Your task to perform on an android device: turn off sleep mode Image 0: 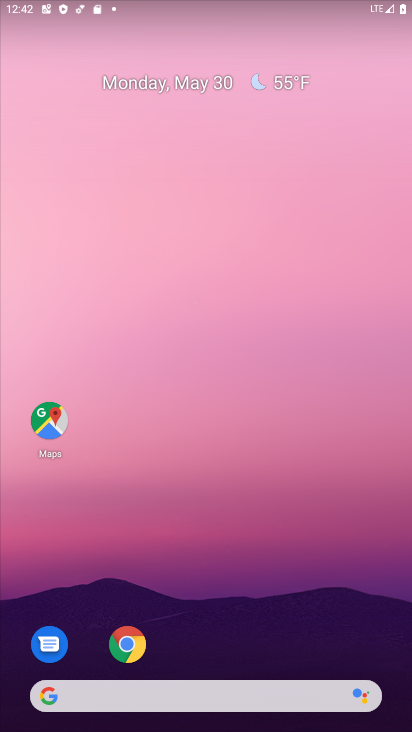
Step 0: drag from (280, 621) to (275, 73)
Your task to perform on an android device: turn off sleep mode Image 1: 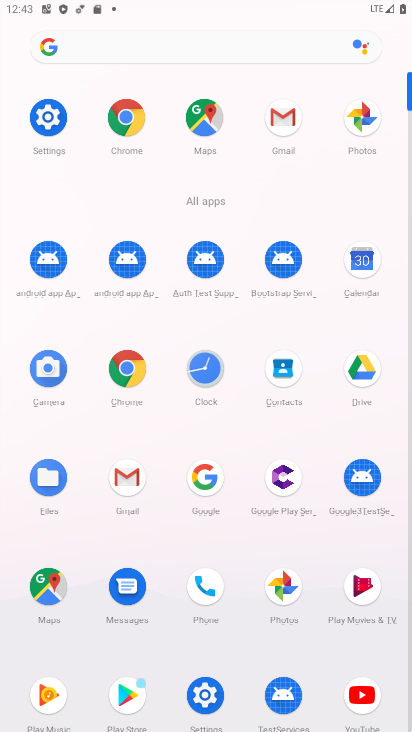
Step 1: click (58, 138)
Your task to perform on an android device: turn off sleep mode Image 2: 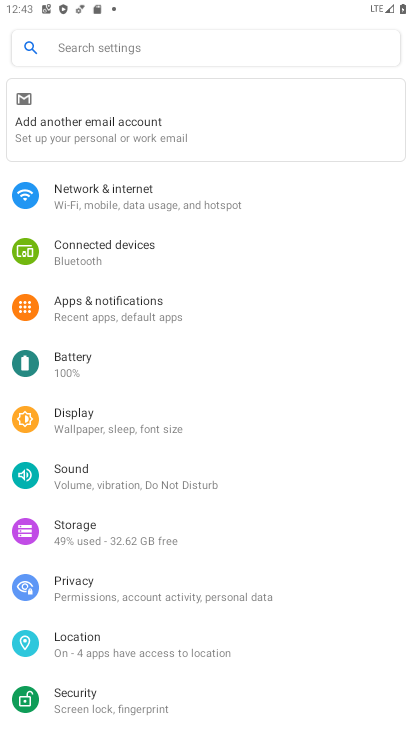
Step 2: click (185, 440)
Your task to perform on an android device: turn off sleep mode Image 3: 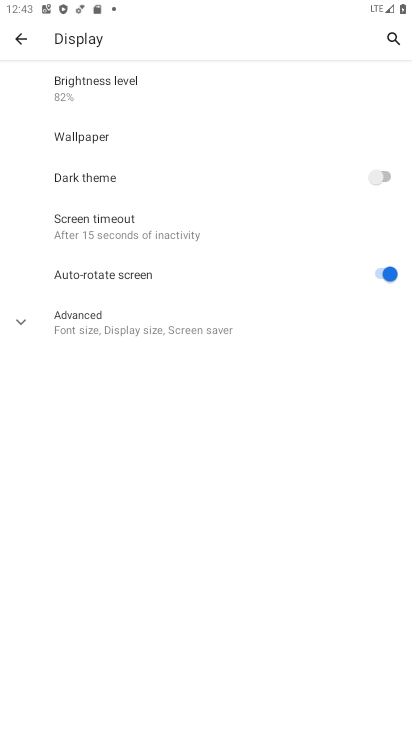
Step 3: click (262, 238)
Your task to perform on an android device: turn off sleep mode Image 4: 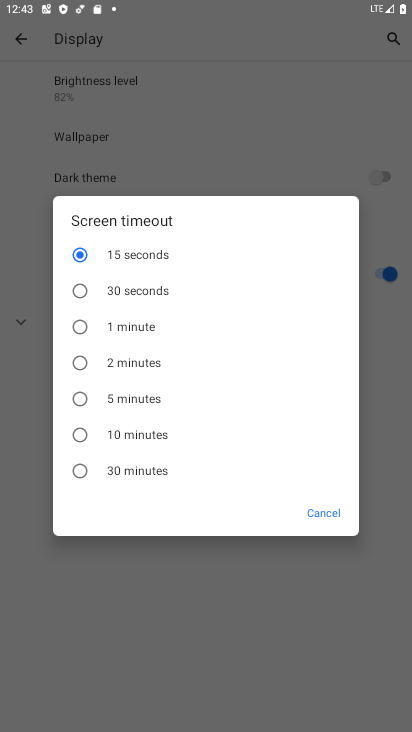
Step 4: click (143, 271)
Your task to perform on an android device: turn off sleep mode Image 5: 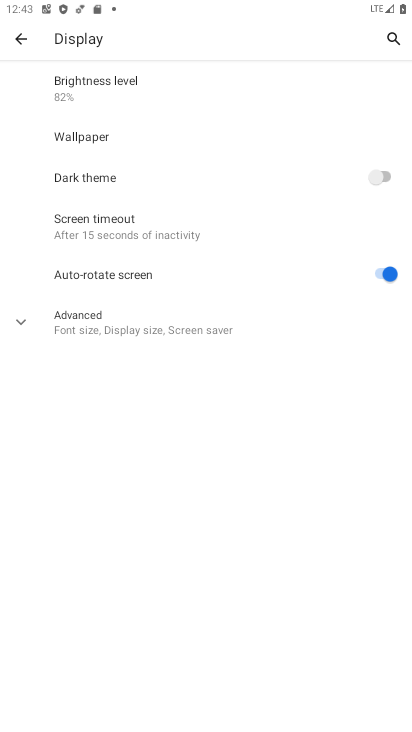
Step 5: task complete